Your task to perform on an android device: Go to internet settings Image 0: 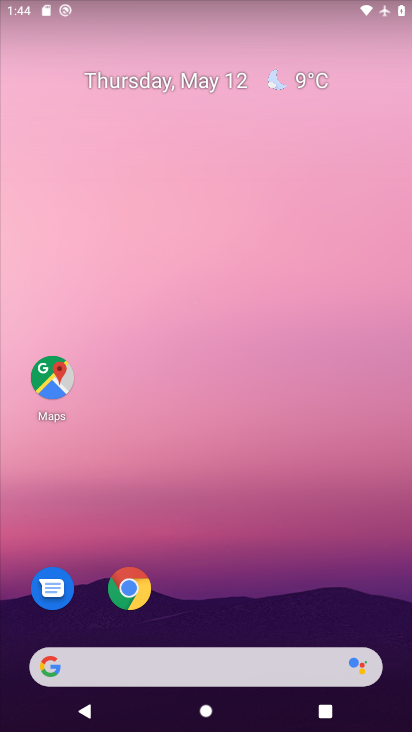
Step 0: drag from (293, 507) to (304, 127)
Your task to perform on an android device: Go to internet settings Image 1: 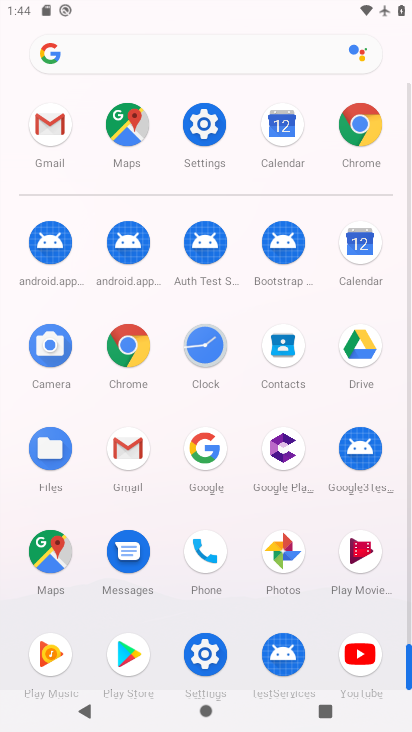
Step 1: click (200, 132)
Your task to perform on an android device: Go to internet settings Image 2: 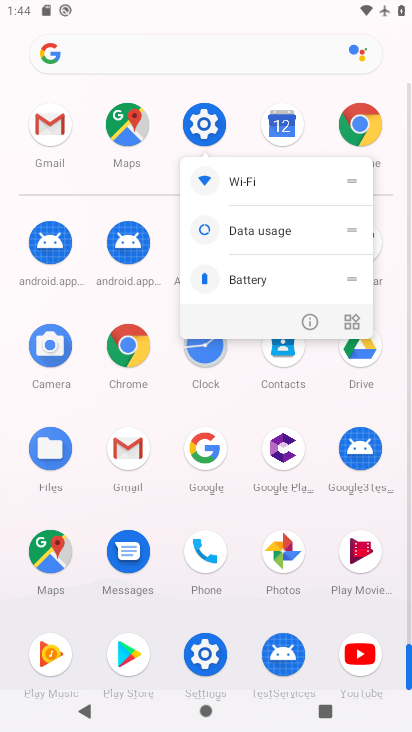
Step 2: click (200, 131)
Your task to perform on an android device: Go to internet settings Image 3: 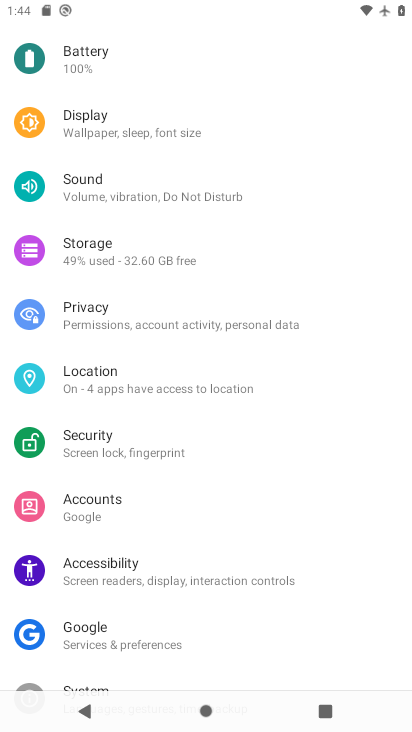
Step 3: drag from (201, 126) to (236, 569)
Your task to perform on an android device: Go to internet settings Image 4: 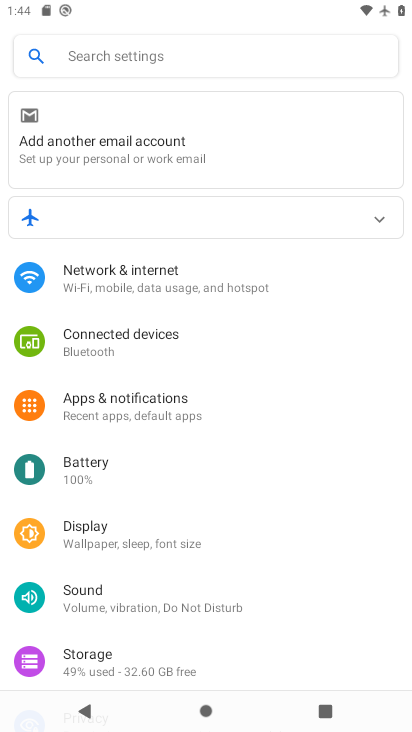
Step 4: click (185, 290)
Your task to perform on an android device: Go to internet settings Image 5: 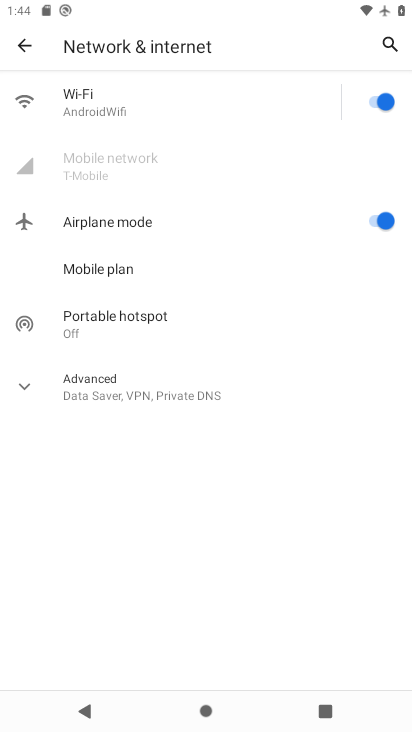
Step 5: task complete